Your task to perform on an android device: see tabs open on other devices in the chrome app Image 0: 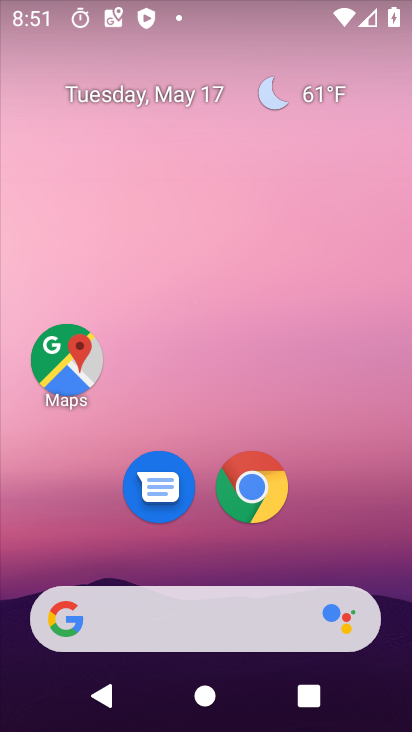
Step 0: click (256, 500)
Your task to perform on an android device: see tabs open on other devices in the chrome app Image 1: 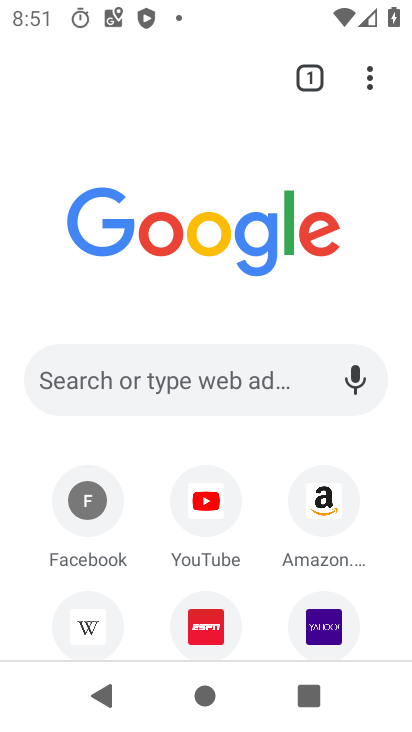
Step 1: task complete